Your task to perform on an android device: check google app version Image 0: 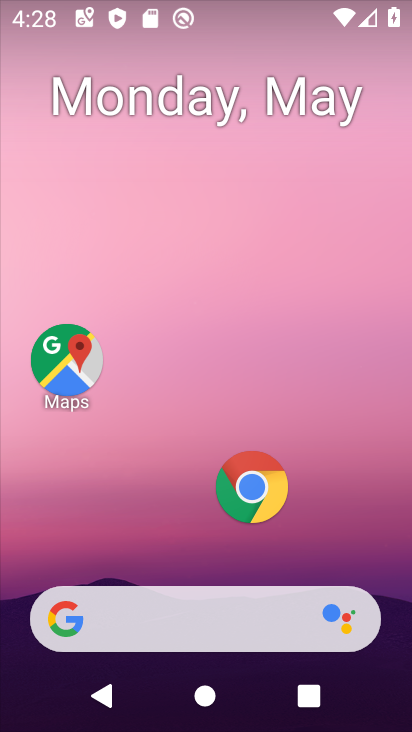
Step 0: drag from (137, 664) to (161, 163)
Your task to perform on an android device: check google app version Image 1: 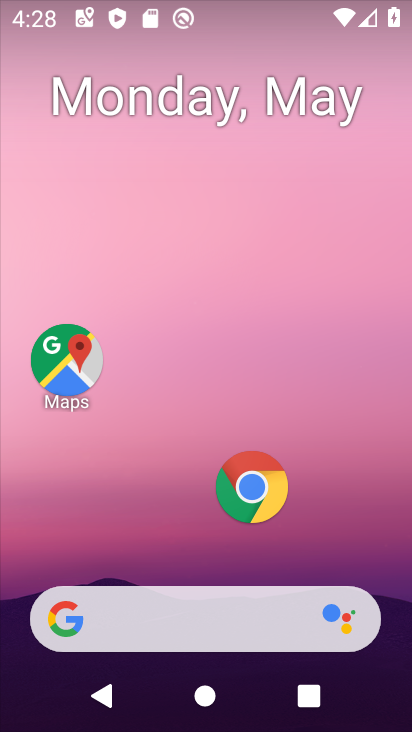
Step 1: drag from (157, 725) to (99, 53)
Your task to perform on an android device: check google app version Image 2: 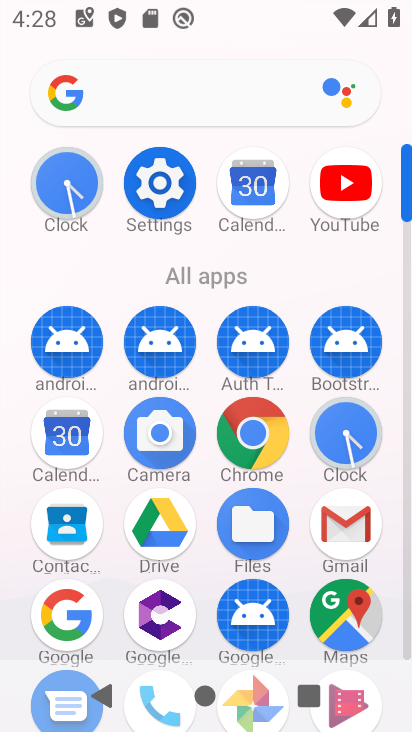
Step 2: click (70, 637)
Your task to perform on an android device: check google app version Image 3: 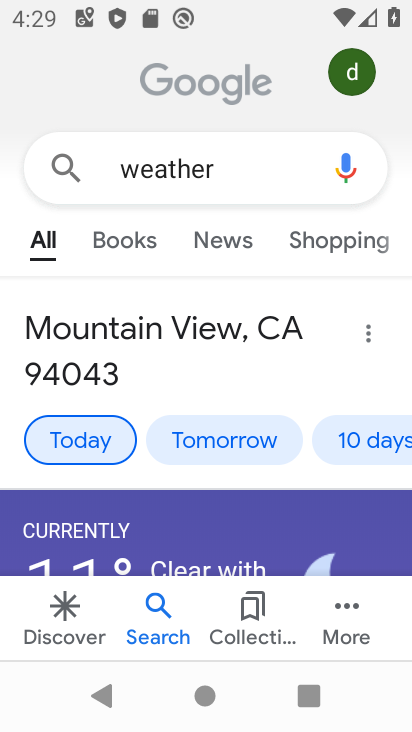
Step 3: click (336, 638)
Your task to perform on an android device: check google app version Image 4: 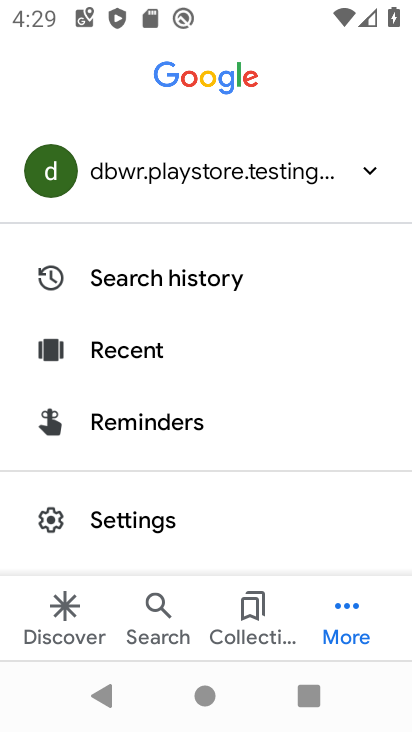
Step 4: click (128, 525)
Your task to perform on an android device: check google app version Image 5: 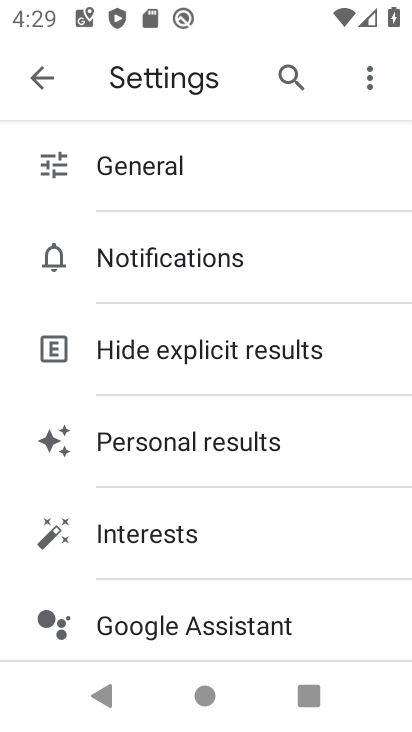
Step 5: drag from (267, 606) to (216, 51)
Your task to perform on an android device: check google app version Image 6: 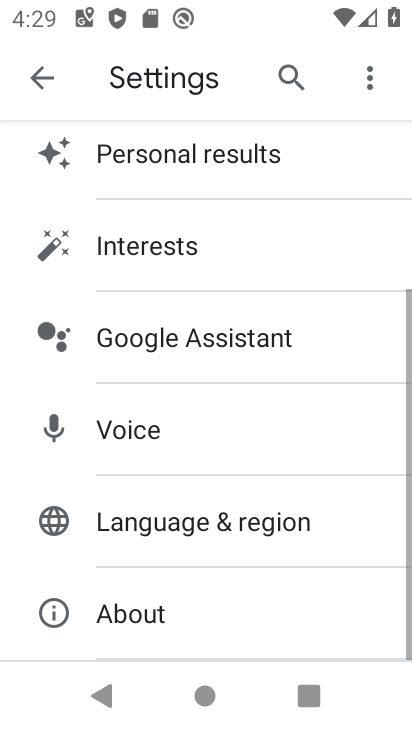
Step 6: click (152, 617)
Your task to perform on an android device: check google app version Image 7: 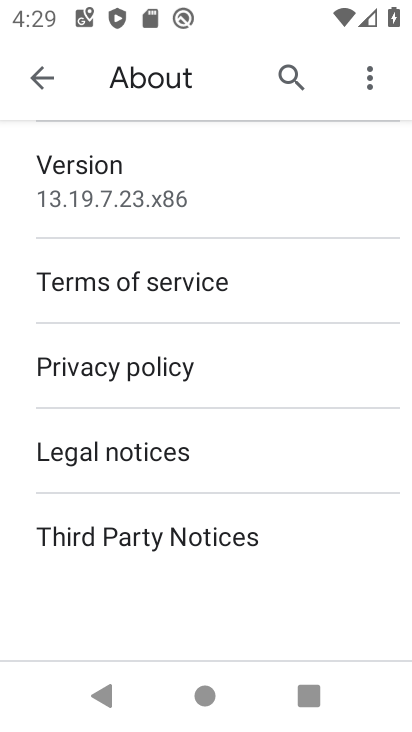
Step 7: task complete